Your task to perform on an android device: move a message to another label in the gmail app Image 0: 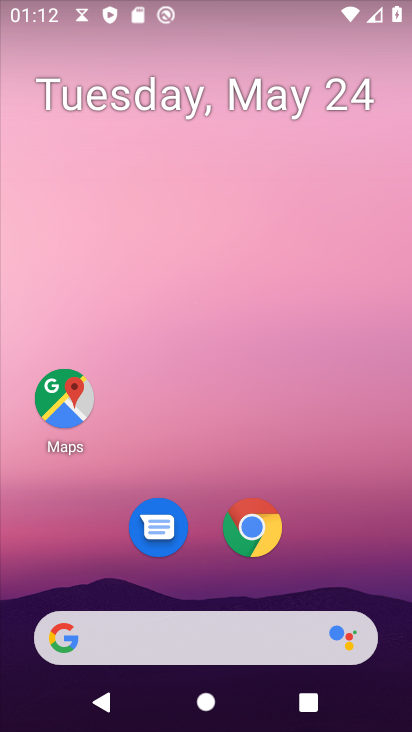
Step 0: press home button
Your task to perform on an android device: move a message to another label in the gmail app Image 1: 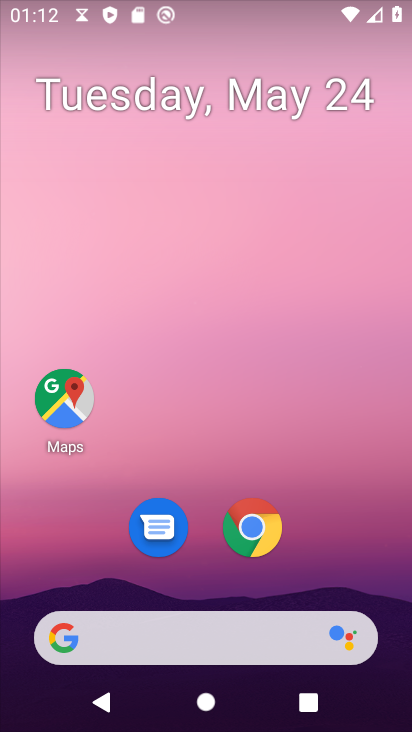
Step 1: drag from (165, 621) to (334, 210)
Your task to perform on an android device: move a message to another label in the gmail app Image 2: 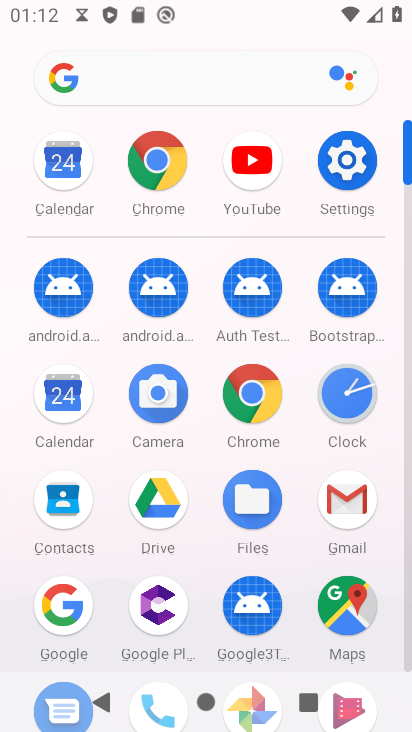
Step 2: click (341, 501)
Your task to perform on an android device: move a message to another label in the gmail app Image 3: 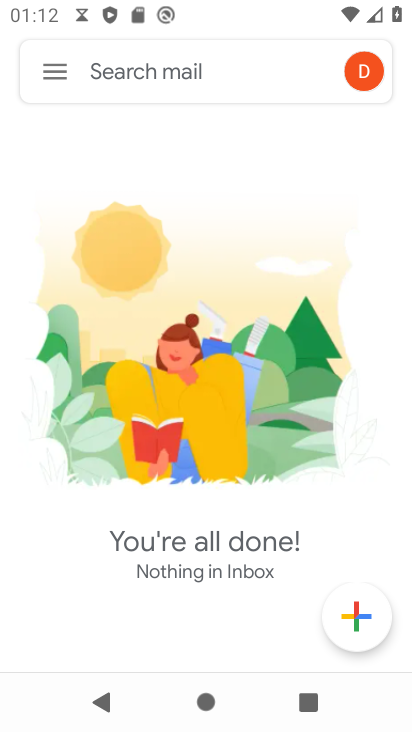
Step 3: task complete